Your task to perform on an android device: turn off notifications in google photos Image 0: 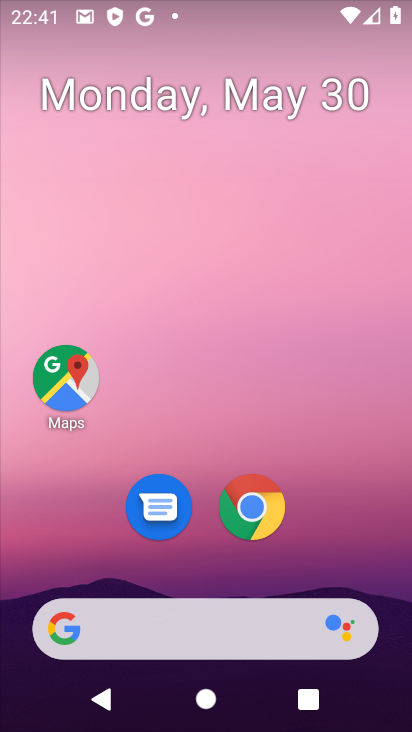
Step 0: drag from (351, 563) to (369, 186)
Your task to perform on an android device: turn off notifications in google photos Image 1: 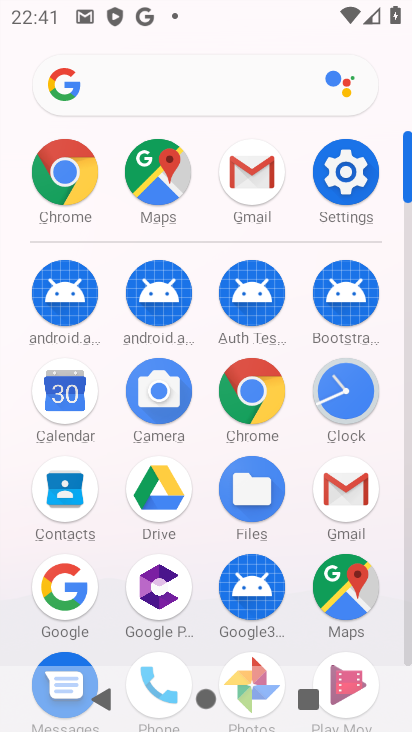
Step 1: drag from (389, 639) to (391, 326)
Your task to perform on an android device: turn off notifications in google photos Image 2: 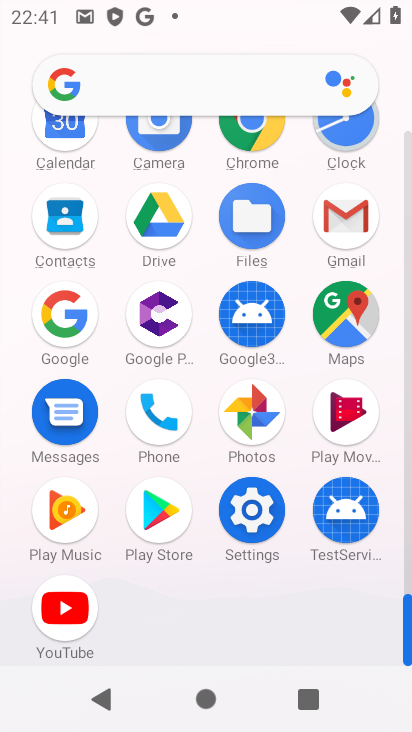
Step 2: click (259, 423)
Your task to perform on an android device: turn off notifications in google photos Image 3: 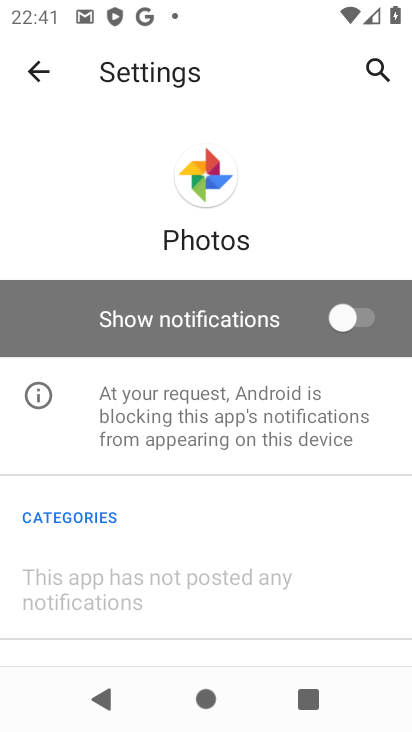
Step 3: task complete